Your task to perform on an android device: Search for 35 best books of all time Image 0: 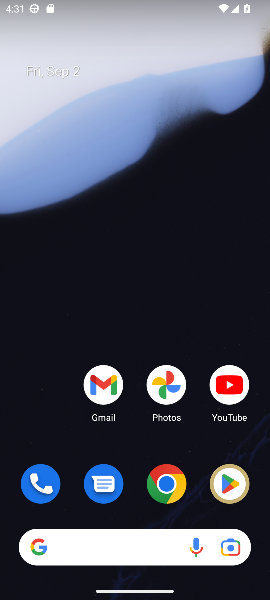
Step 0: click (163, 485)
Your task to perform on an android device: Search for 35 best books of all time Image 1: 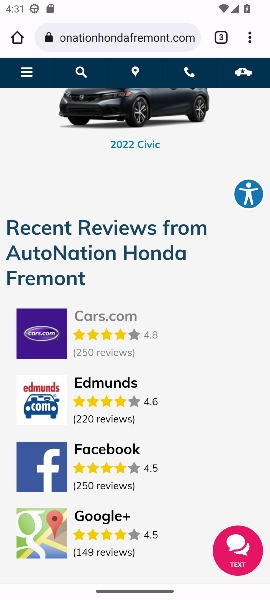
Step 1: click (163, 32)
Your task to perform on an android device: Search for 35 best books of all time Image 2: 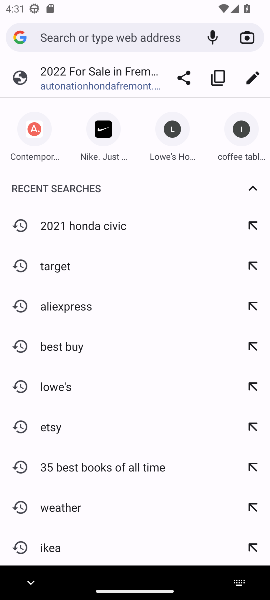
Step 2: type "35 best books of all time"
Your task to perform on an android device: Search for 35 best books of all time Image 3: 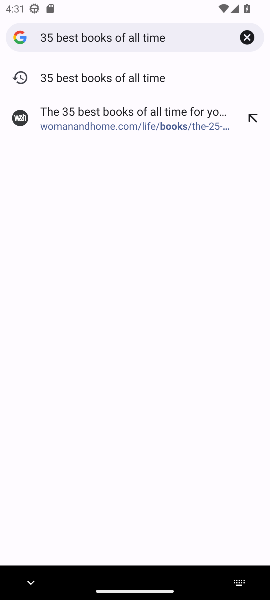
Step 3: click (128, 75)
Your task to perform on an android device: Search for 35 best books of all time Image 4: 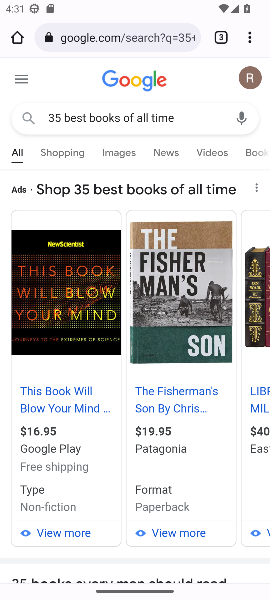
Step 4: drag from (89, 517) to (229, 118)
Your task to perform on an android device: Search for 35 best books of all time Image 5: 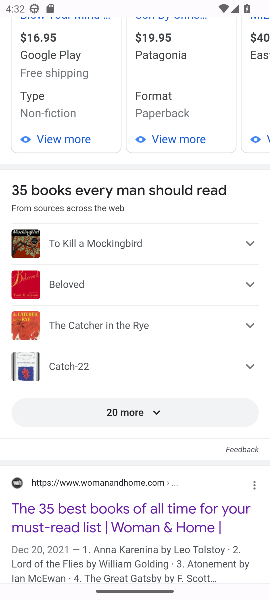
Step 5: drag from (141, 491) to (190, 316)
Your task to perform on an android device: Search for 35 best books of all time Image 6: 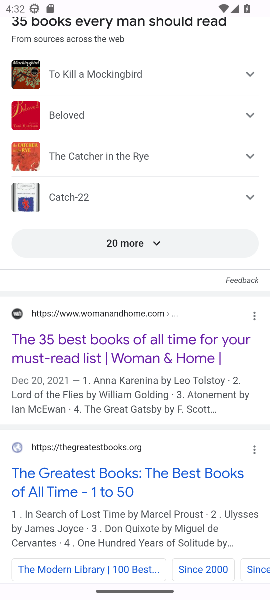
Step 6: click (144, 354)
Your task to perform on an android device: Search for 35 best books of all time Image 7: 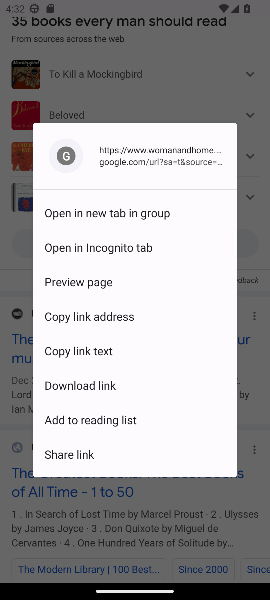
Step 7: click (259, 368)
Your task to perform on an android device: Search for 35 best books of all time Image 8: 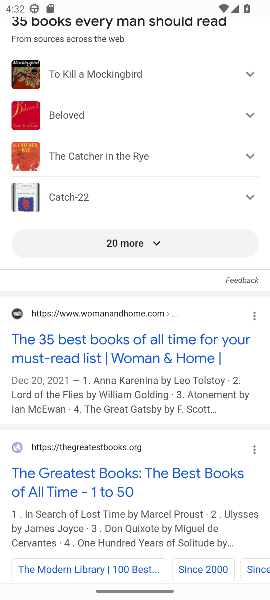
Step 8: click (116, 342)
Your task to perform on an android device: Search for 35 best books of all time Image 9: 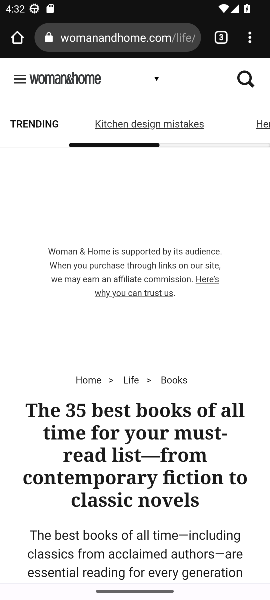
Step 9: task complete